Your task to perform on an android device: change the clock display to digital Image 0: 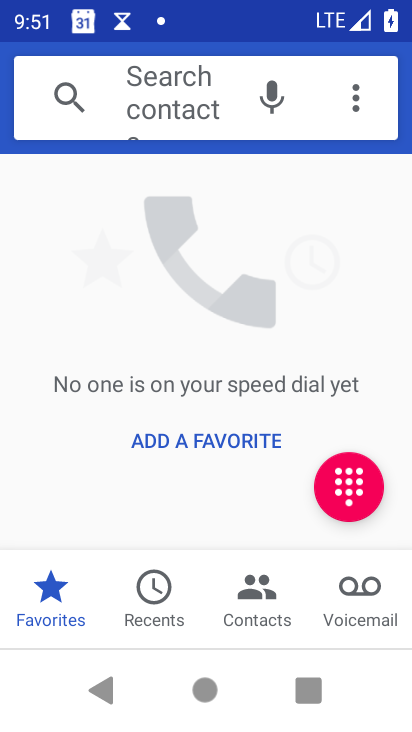
Step 0: press home button
Your task to perform on an android device: change the clock display to digital Image 1: 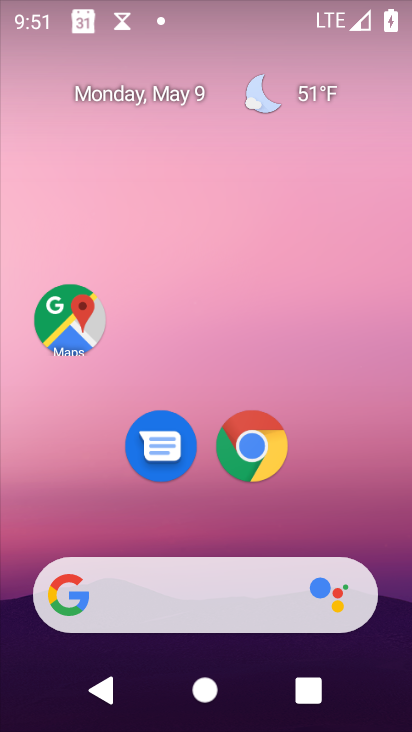
Step 1: drag from (270, 496) to (264, 118)
Your task to perform on an android device: change the clock display to digital Image 2: 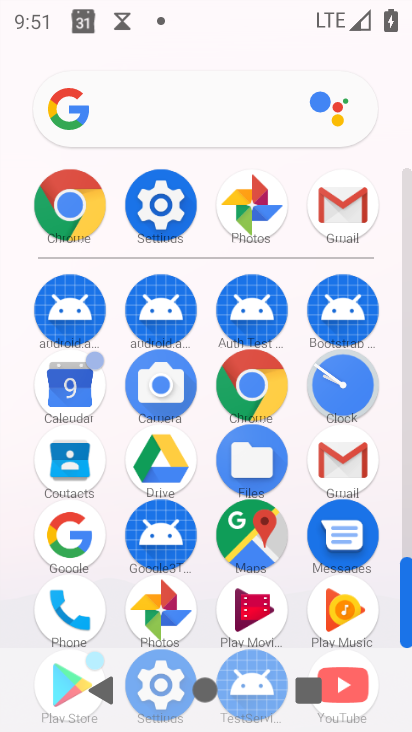
Step 2: click (153, 208)
Your task to perform on an android device: change the clock display to digital Image 3: 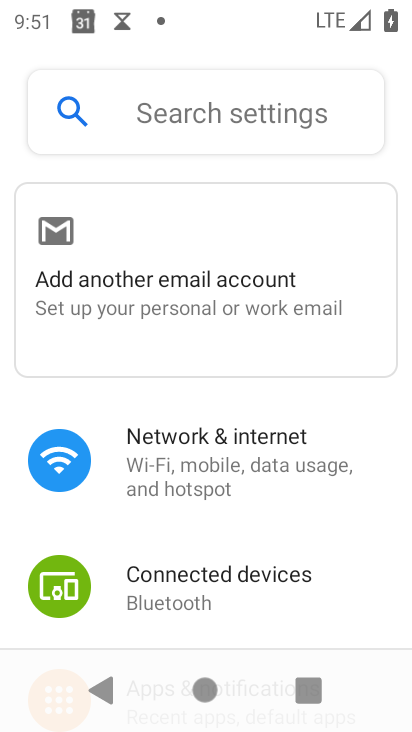
Step 3: drag from (224, 605) to (274, 254)
Your task to perform on an android device: change the clock display to digital Image 4: 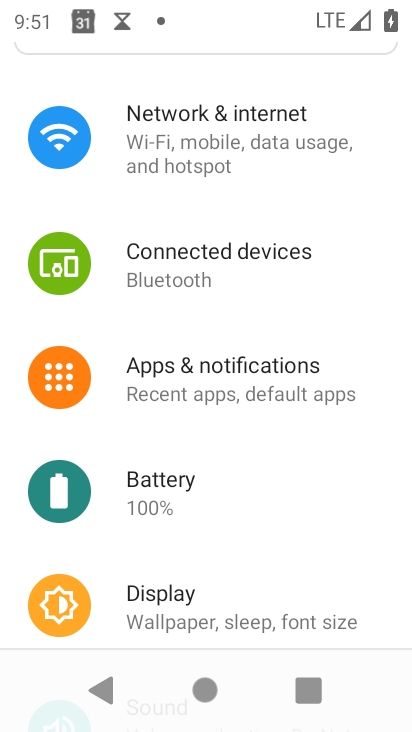
Step 4: click (237, 613)
Your task to perform on an android device: change the clock display to digital Image 5: 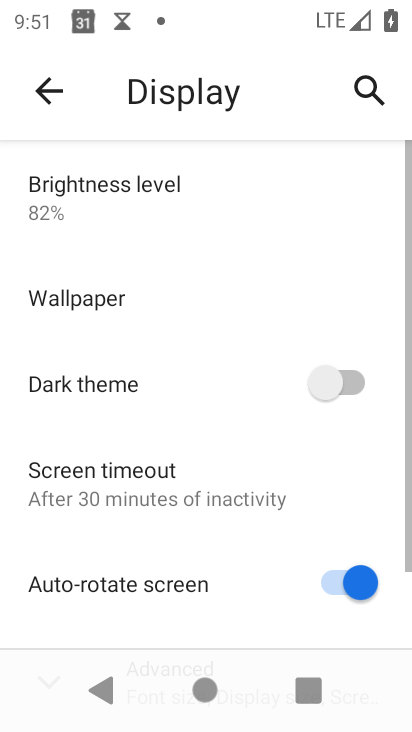
Step 5: drag from (234, 599) to (228, 220)
Your task to perform on an android device: change the clock display to digital Image 6: 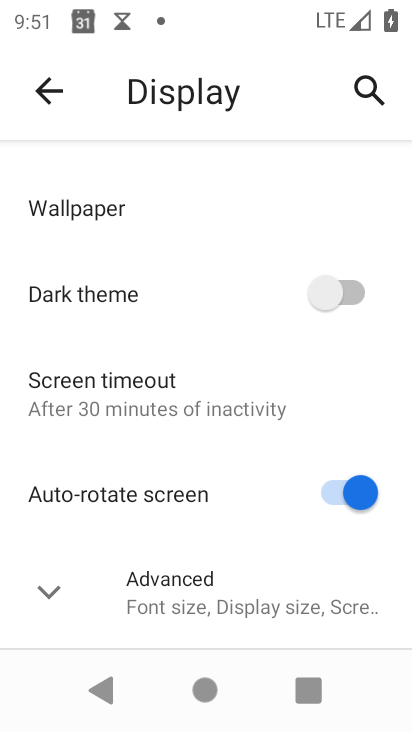
Step 6: click (185, 607)
Your task to perform on an android device: change the clock display to digital Image 7: 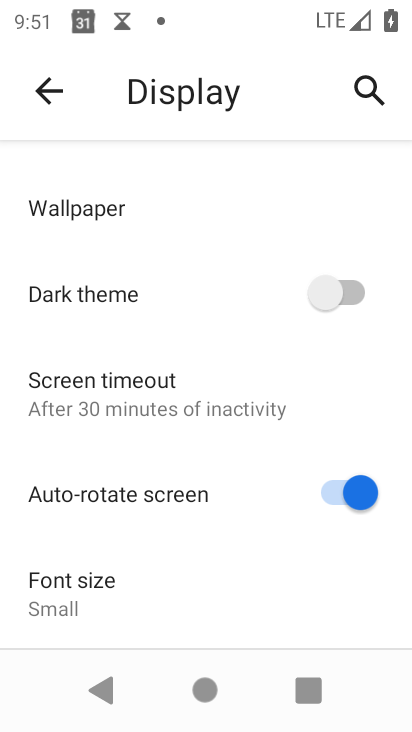
Step 7: drag from (220, 543) to (215, 245)
Your task to perform on an android device: change the clock display to digital Image 8: 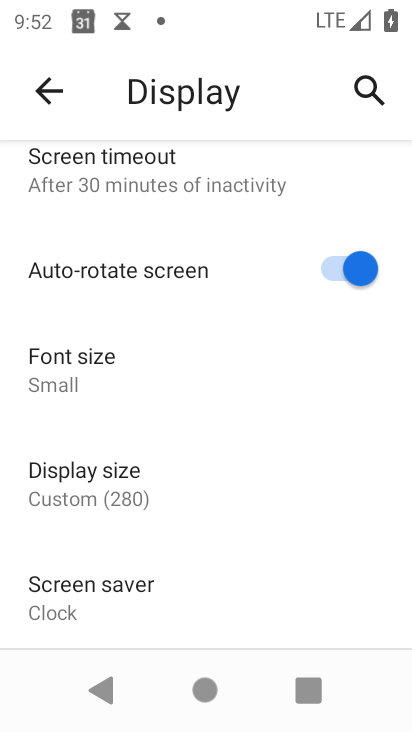
Step 8: click (119, 591)
Your task to perform on an android device: change the clock display to digital Image 9: 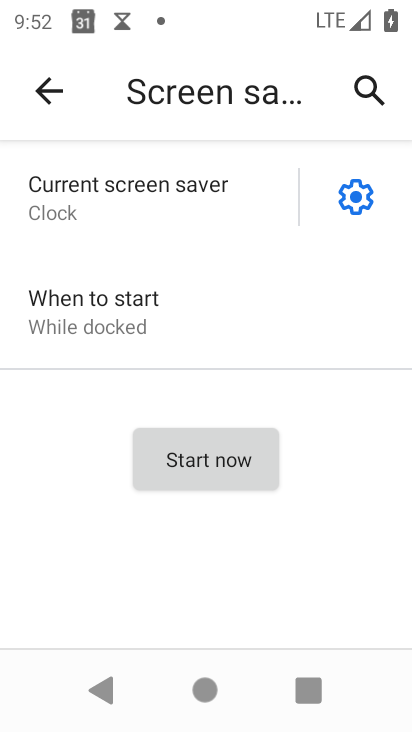
Step 9: click (356, 189)
Your task to perform on an android device: change the clock display to digital Image 10: 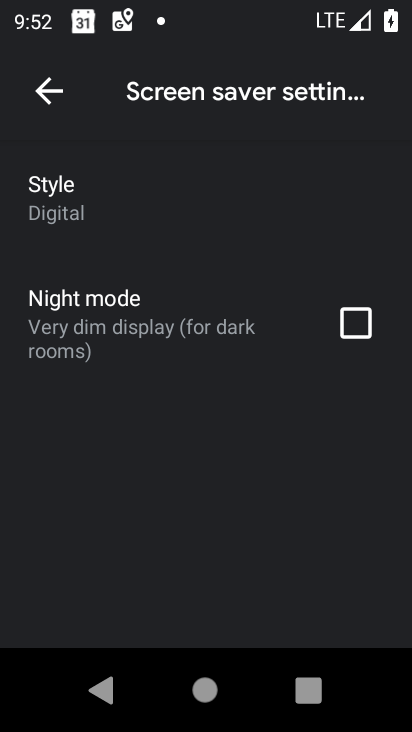
Step 10: click (82, 212)
Your task to perform on an android device: change the clock display to digital Image 11: 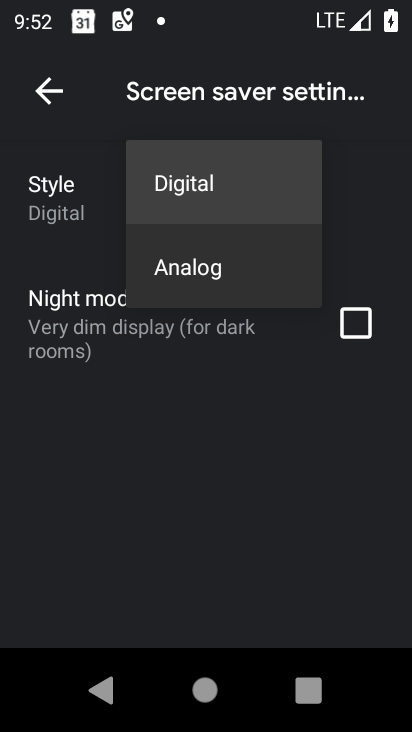
Step 11: click (217, 275)
Your task to perform on an android device: change the clock display to digital Image 12: 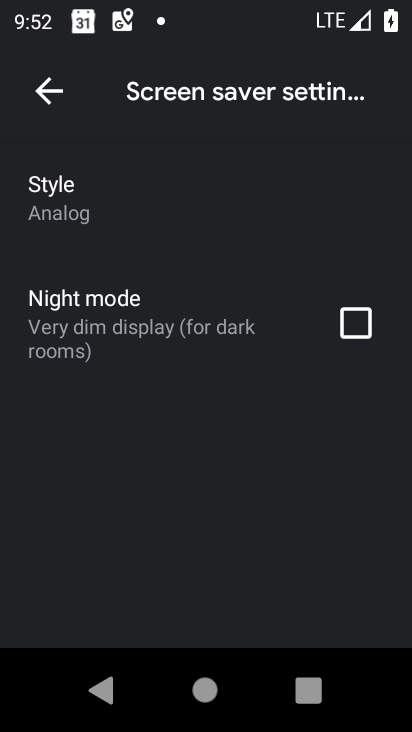
Step 12: task complete